Your task to perform on an android device: Find coffee shops on Maps Image 0: 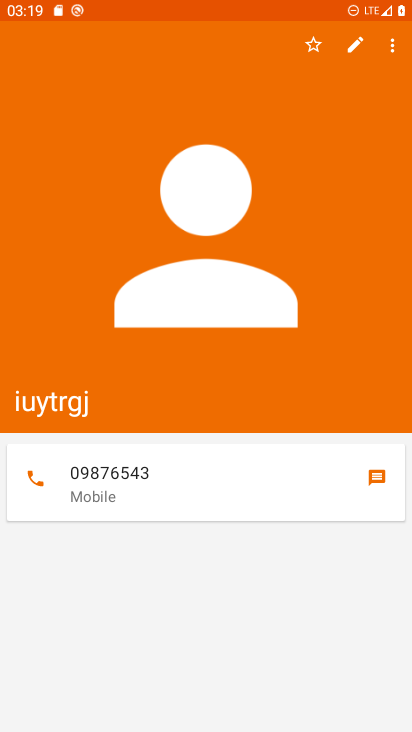
Step 0: press home button
Your task to perform on an android device: Find coffee shops on Maps Image 1: 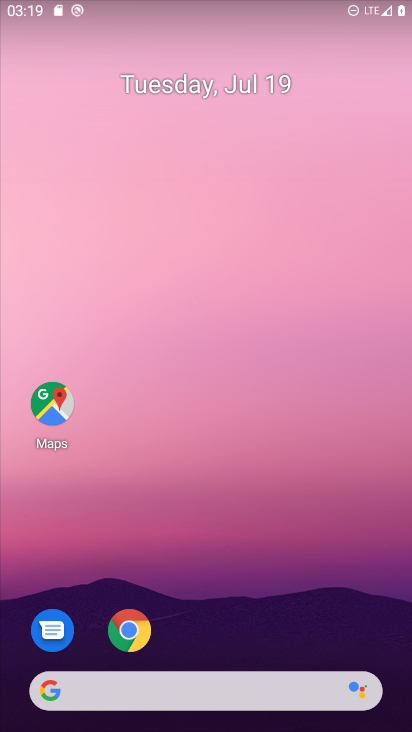
Step 1: click (54, 404)
Your task to perform on an android device: Find coffee shops on Maps Image 2: 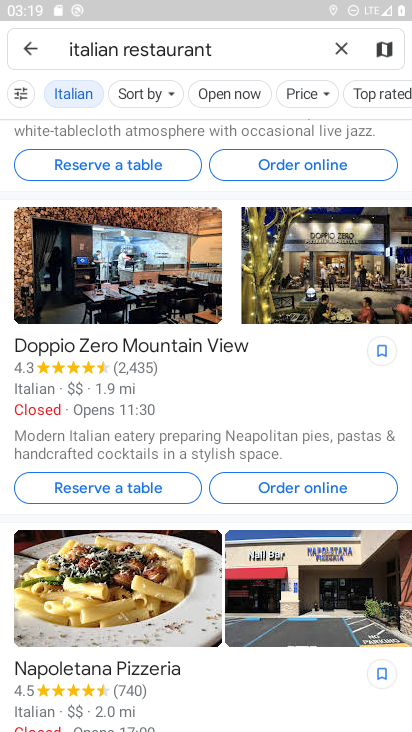
Step 2: click (338, 44)
Your task to perform on an android device: Find coffee shops on Maps Image 3: 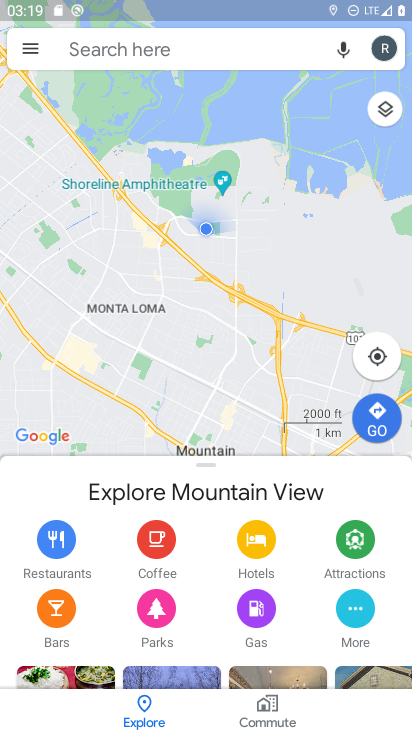
Step 3: click (92, 45)
Your task to perform on an android device: Find coffee shops on Maps Image 4: 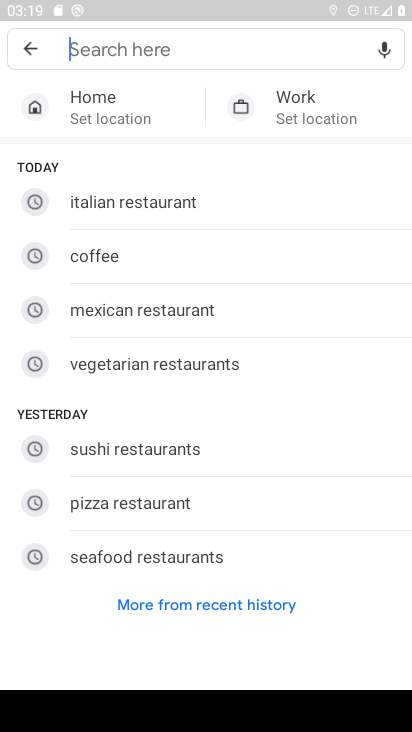
Step 4: type "coffee shop"
Your task to perform on an android device: Find coffee shops on Maps Image 5: 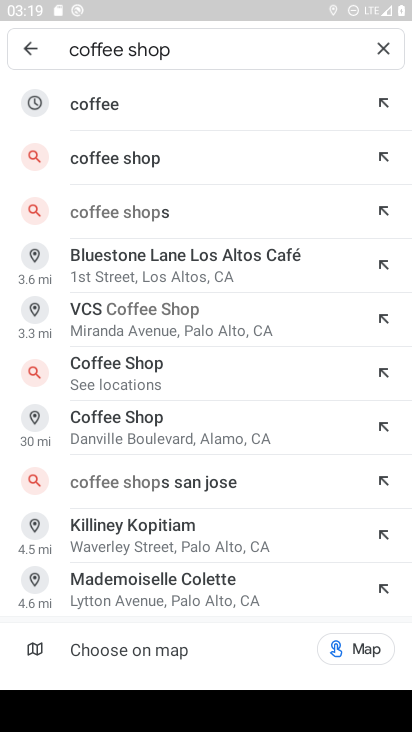
Step 5: click (124, 154)
Your task to perform on an android device: Find coffee shops on Maps Image 6: 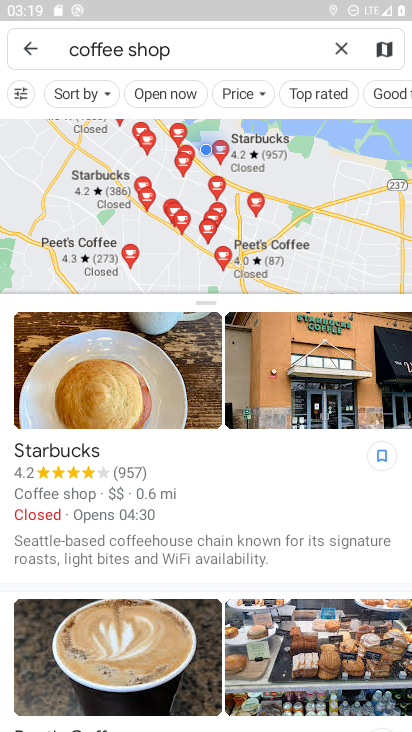
Step 6: task complete